Your task to perform on an android device: Go to internet settings Image 0: 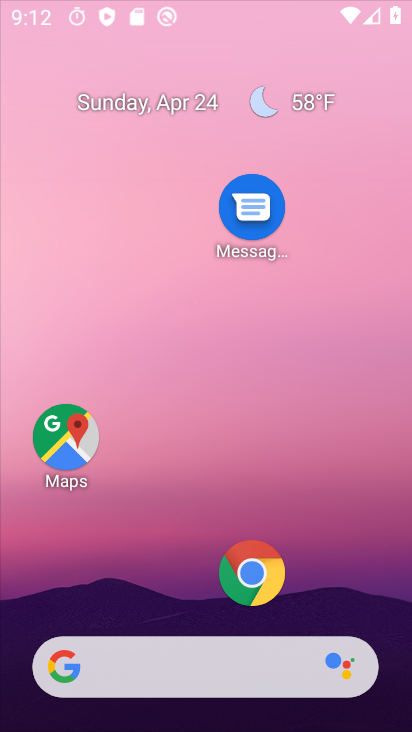
Step 0: click (235, 219)
Your task to perform on an android device: Go to internet settings Image 1: 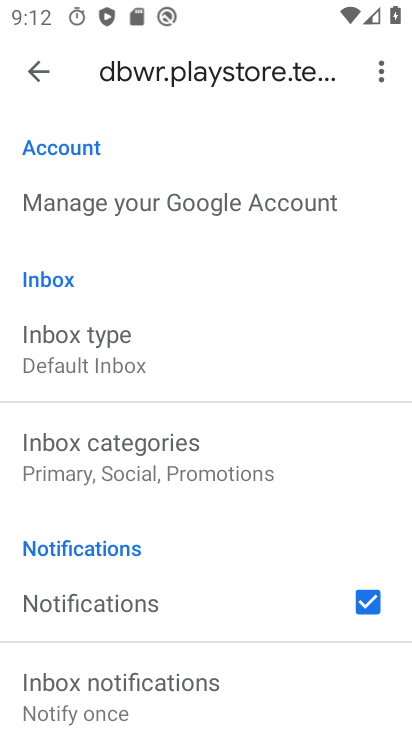
Step 1: press home button
Your task to perform on an android device: Go to internet settings Image 2: 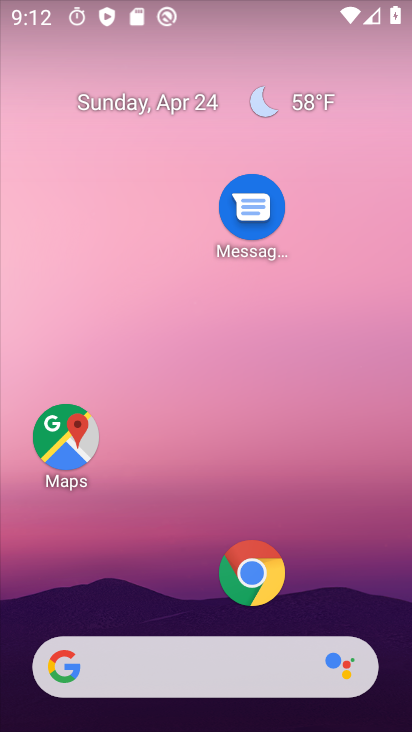
Step 2: drag from (150, 553) to (266, 0)
Your task to perform on an android device: Go to internet settings Image 3: 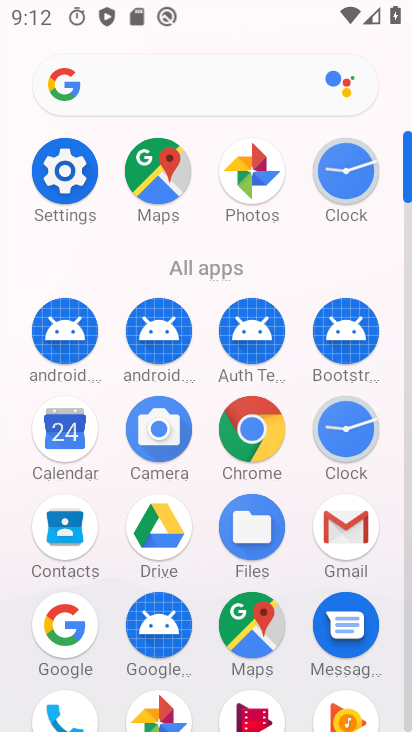
Step 3: click (72, 177)
Your task to perform on an android device: Go to internet settings Image 4: 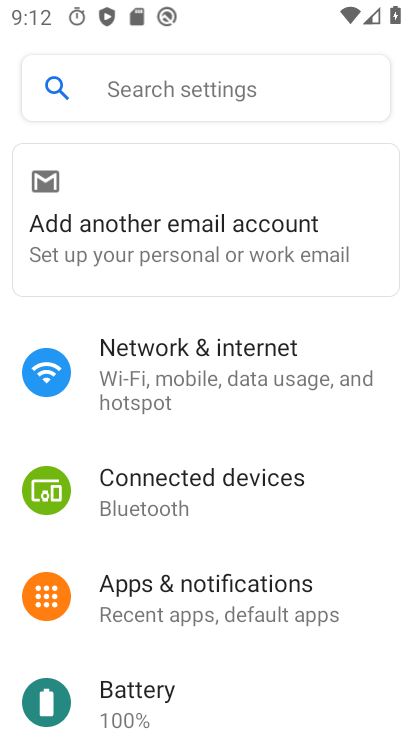
Step 4: click (216, 408)
Your task to perform on an android device: Go to internet settings Image 5: 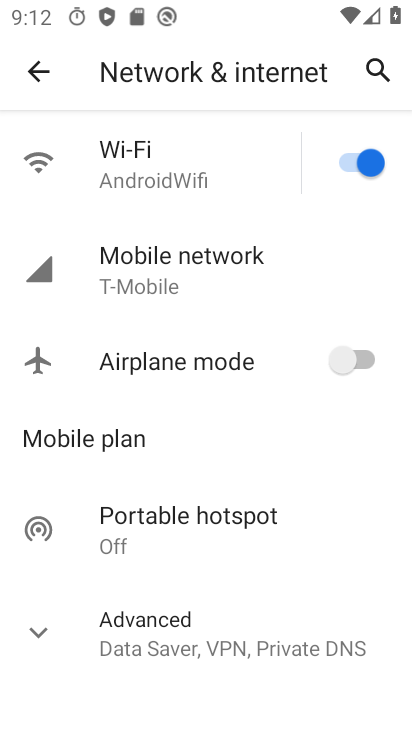
Step 5: task complete